Your task to perform on an android device: Search for Italian restaurants on Maps Image 0: 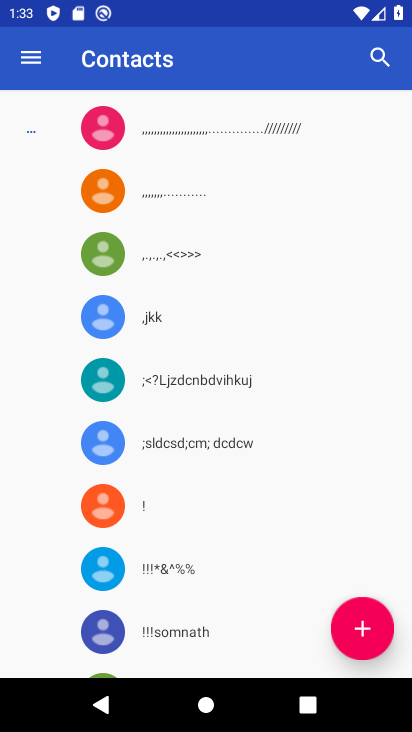
Step 0: press back button
Your task to perform on an android device: Search for Italian restaurants on Maps Image 1: 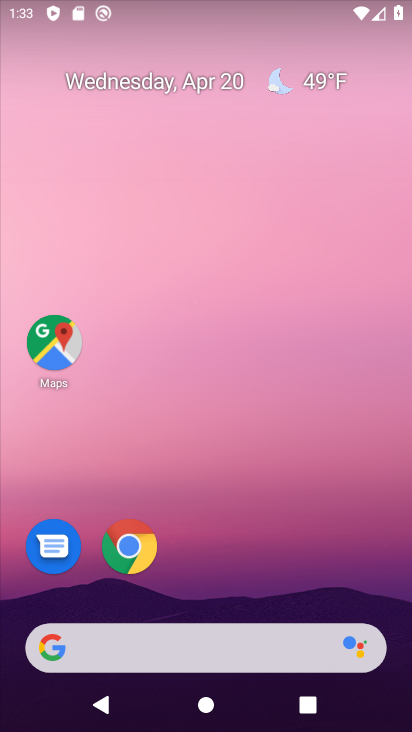
Step 1: click (62, 345)
Your task to perform on an android device: Search for Italian restaurants on Maps Image 2: 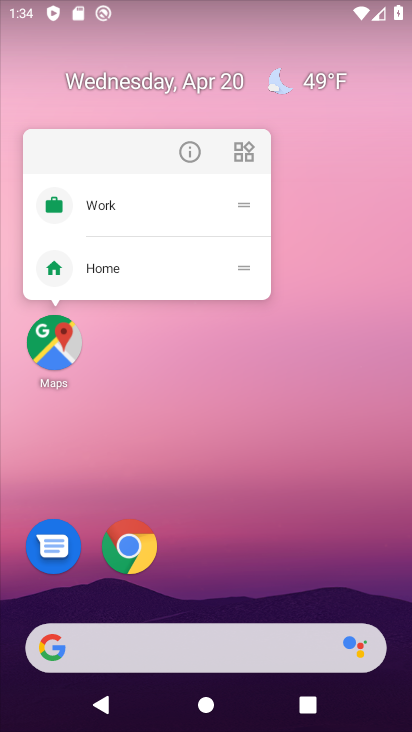
Step 2: click (61, 343)
Your task to perform on an android device: Search for Italian restaurants on Maps Image 3: 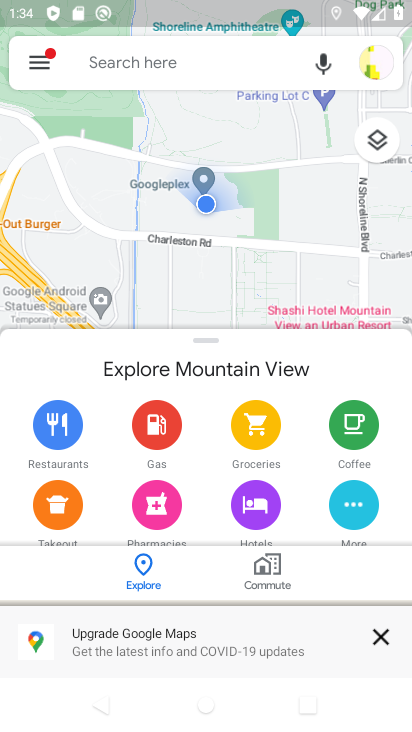
Step 3: click (162, 57)
Your task to perform on an android device: Search for Italian restaurants on Maps Image 4: 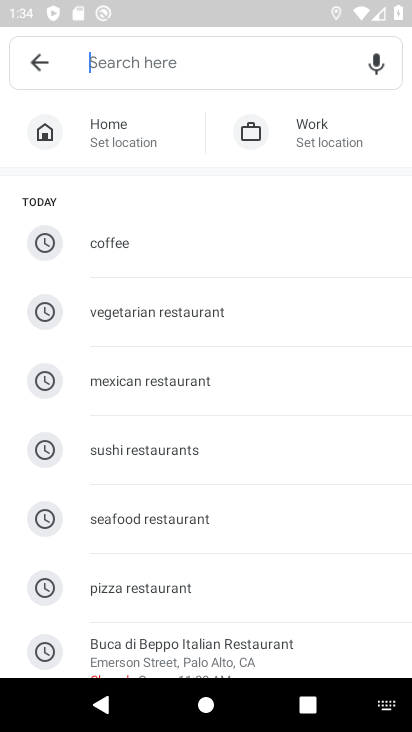
Step 4: drag from (165, 592) to (299, 200)
Your task to perform on an android device: Search for Italian restaurants on Maps Image 5: 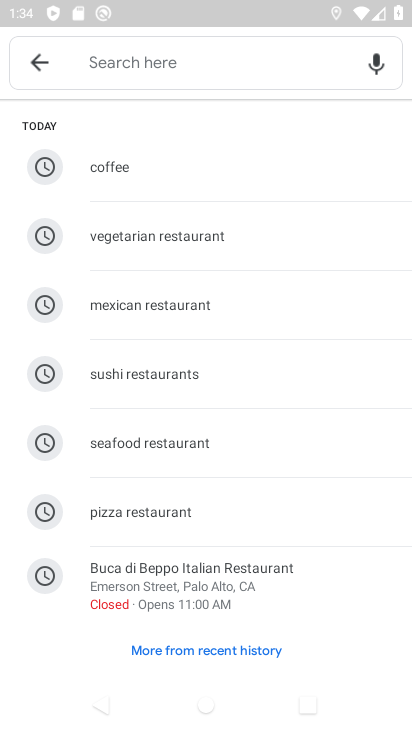
Step 5: click (137, 69)
Your task to perform on an android device: Search for Italian restaurants on Maps Image 6: 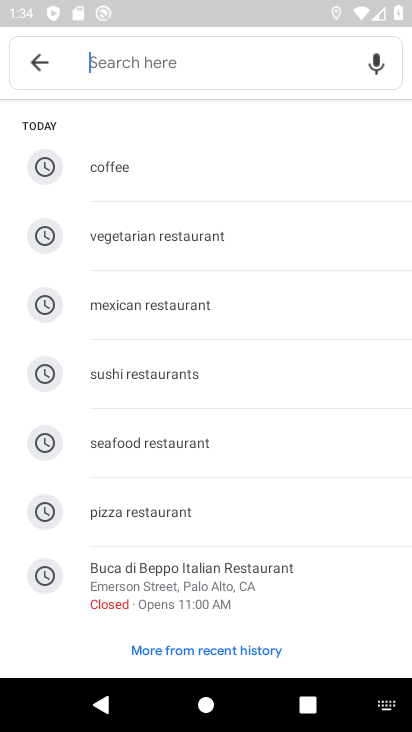
Step 6: type "italian restaurant"
Your task to perform on an android device: Search for Italian restaurants on Maps Image 7: 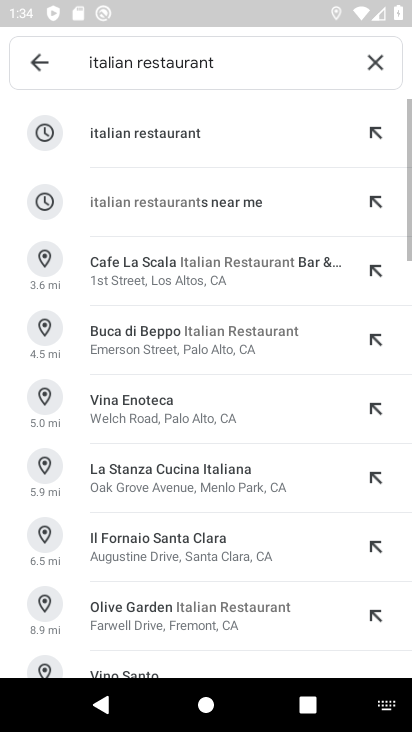
Step 7: click (129, 129)
Your task to perform on an android device: Search for Italian restaurants on Maps Image 8: 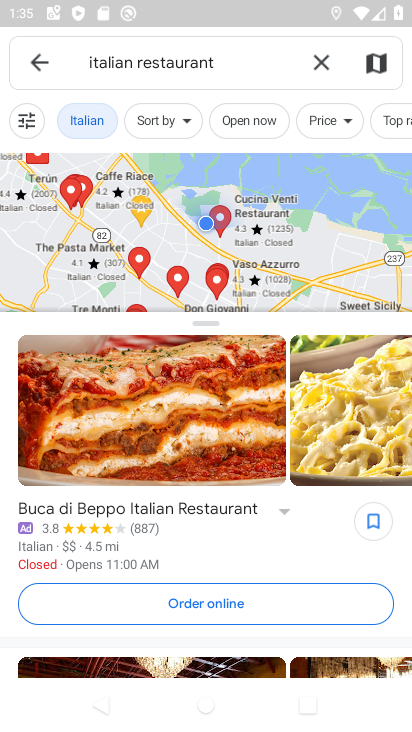
Step 8: task complete